Your task to perform on an android device: Open location settings Image 0: 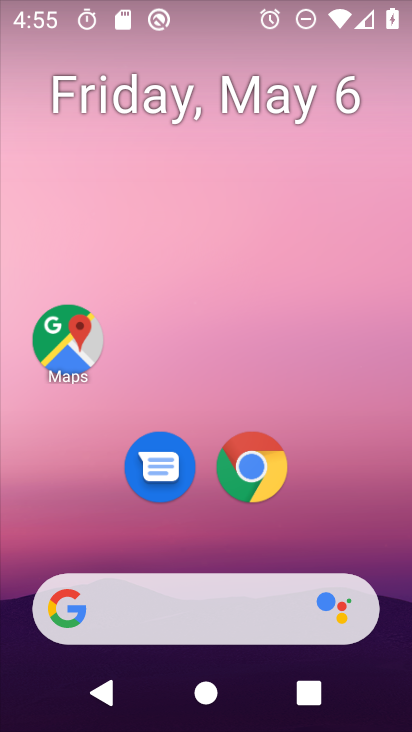
Step 0: drag from (350, 530) to (315, 178)
Your task to perform on an android device: Open location settings Image 1: 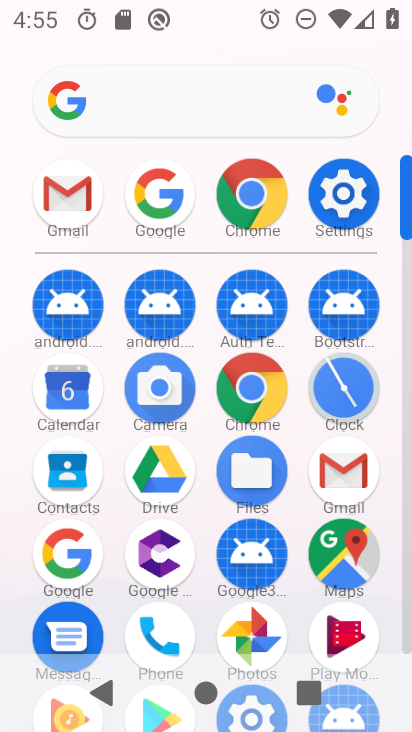
Step 1: click (361, 195)
Your task to perform on an android device: Open location settings Image 2: 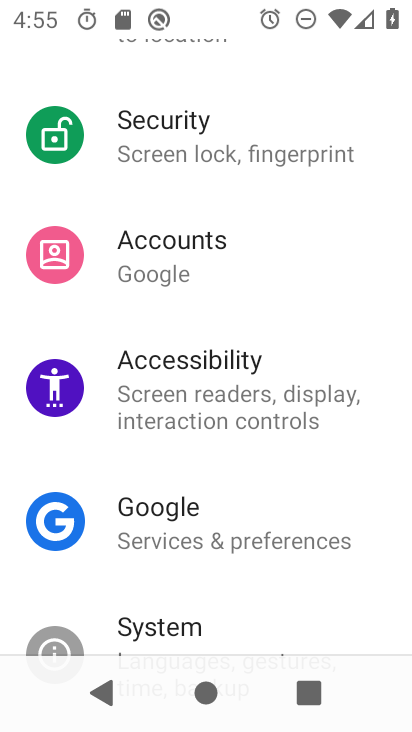
Step 2: drag from (216, 518) to (199, 153)
Your task to perform on an android device: Open location settings Image 3: 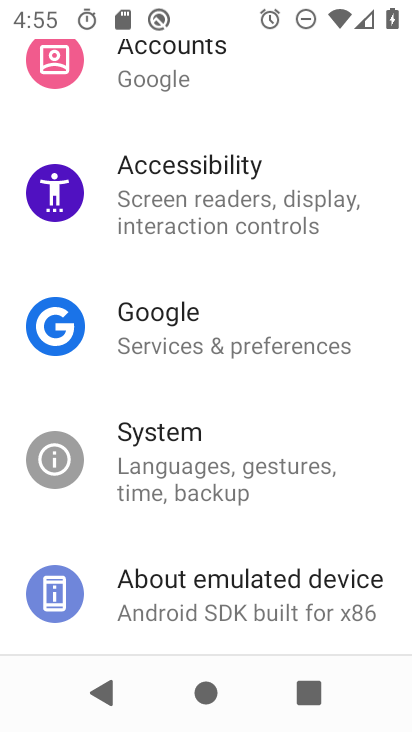
Step 3: drag from (199, 322) to (195, 536)
Your task to perform on an android device: Open location settings Image 4: 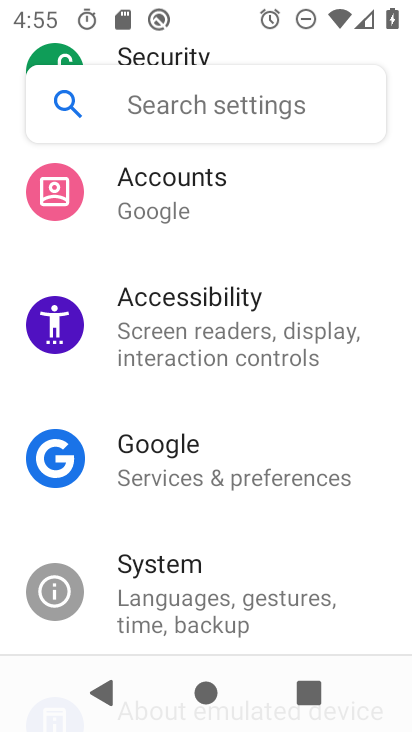
Step 4: drag from (208, 368) to (201, 560)
Your task to perform on an android device: Open location settings Image 5: 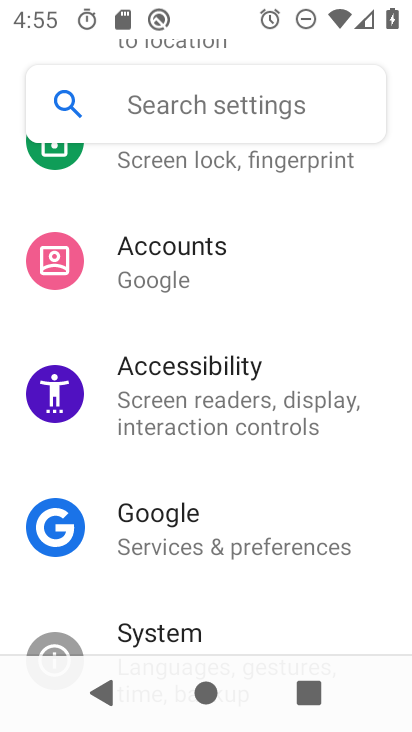
Step 5: drag from (207, 591) to (192, 165)
Your task to perform on an android device: Open location settings Image 6: 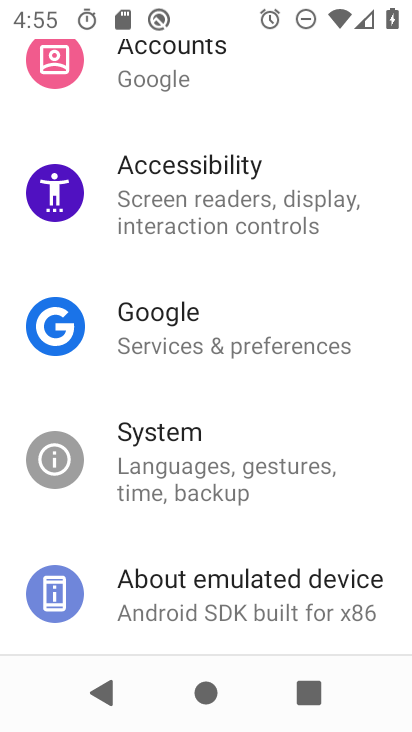
Step 6: drag from (205, 554) to (206, 183)
Your task to perform on an android device: Open location settings Image 7: 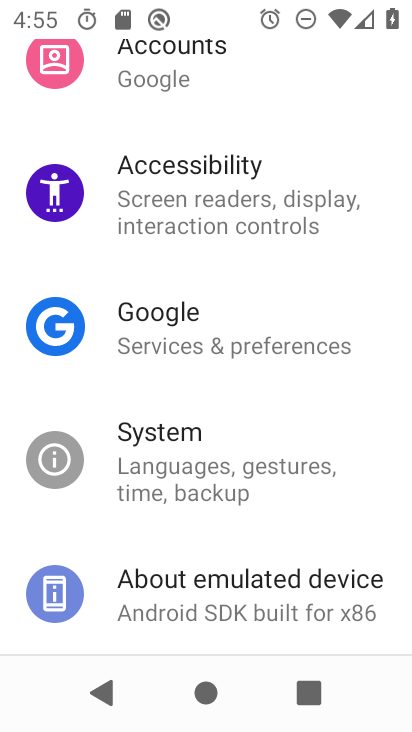
Step 7: drag from (224, 256) to (178, 651)
Your task to perform on an android device: Open location settings Image 8: 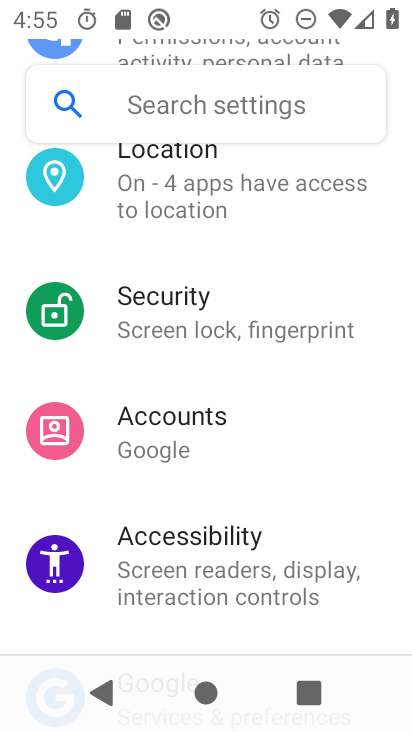
Step 8: drag from (196, 363) to (162, 627)
Your task to perform on an android device: Open location settings Image 9: 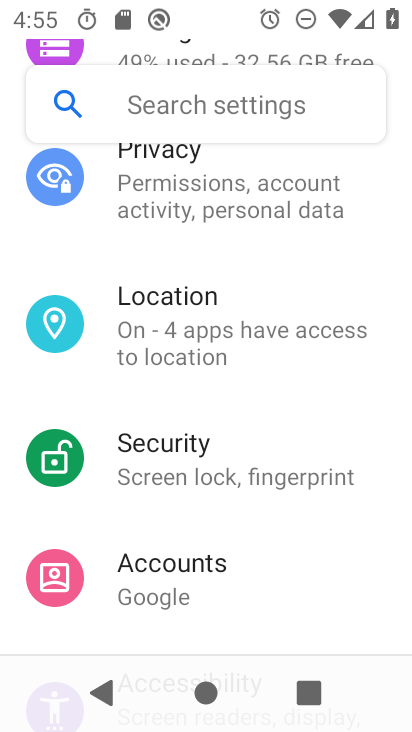
Step 9: click (171, 364)
Your task to perform on an android device: Open location settings Image 10: 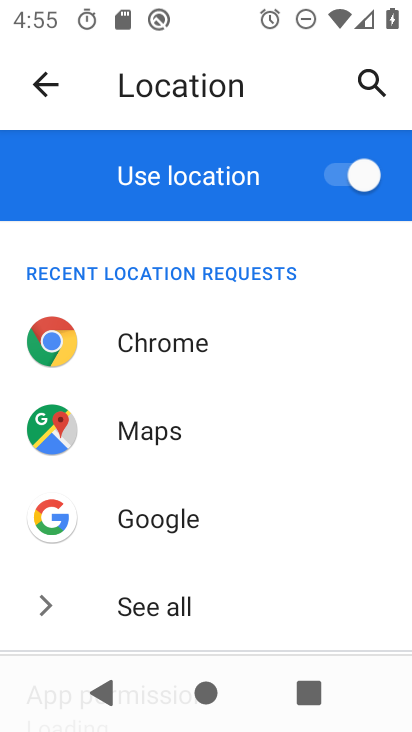
Step 10: task complete